Your task to perform on an android device: Go to internet settings Image 0: 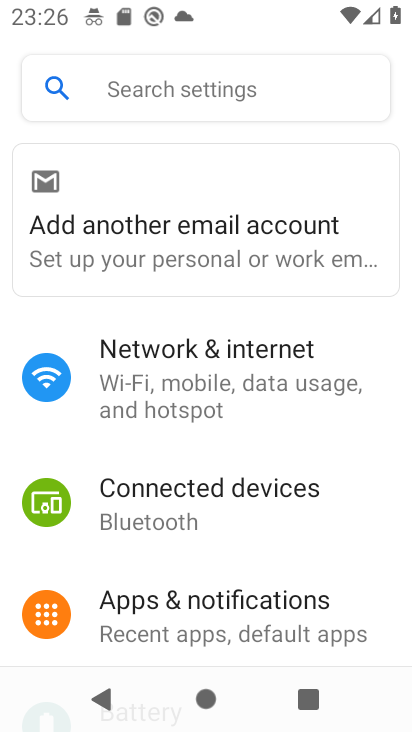
Step 0: click (209, 365)
Your task to perform on an android device: Go to internet settings Image 1: 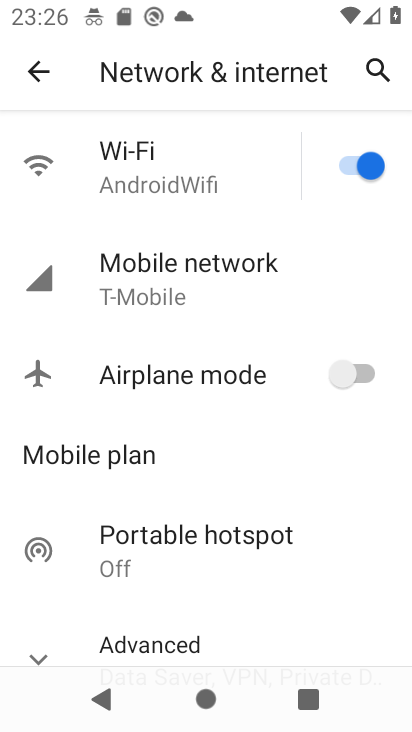
Step 1: click (205, 282)
Your task to perform on an android device: Go to internet settings Image 2: 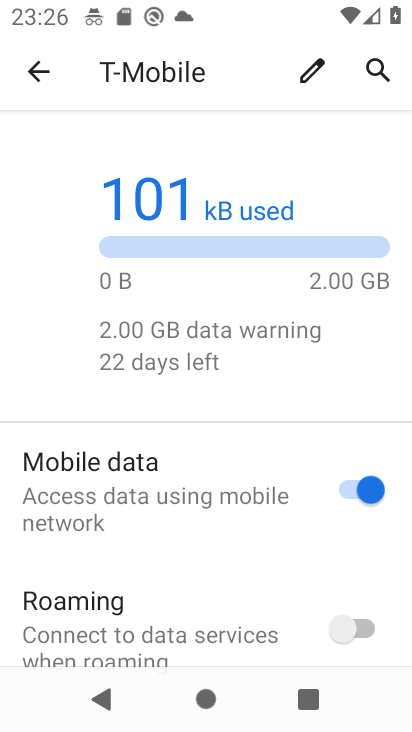
Step 2: task complete